Your task to perform on an android device: Go to Android settings Image 0: 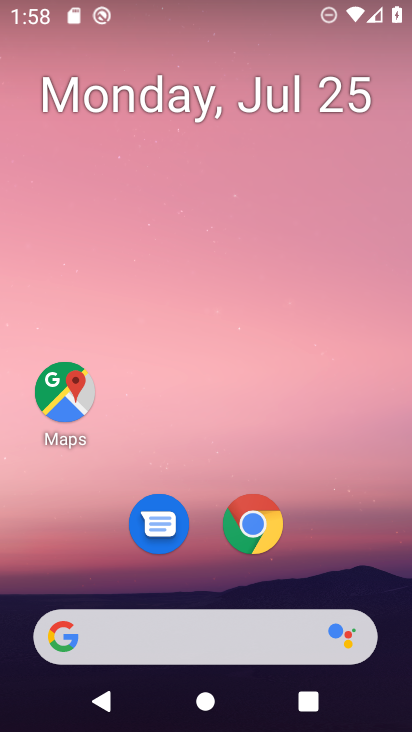
Step 0: press home button
Your task to perform on an android device: Go to Android settings Image 1: 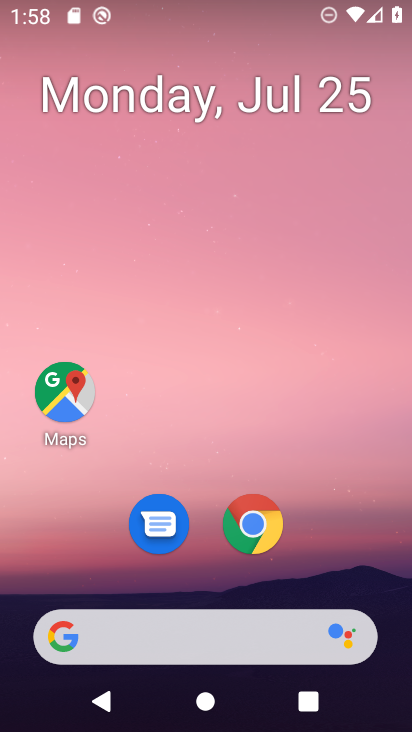
Step 1: drag from (220, 644) to (404, 188)
Your task to perform on an android device: Go to Android settings Image 2: 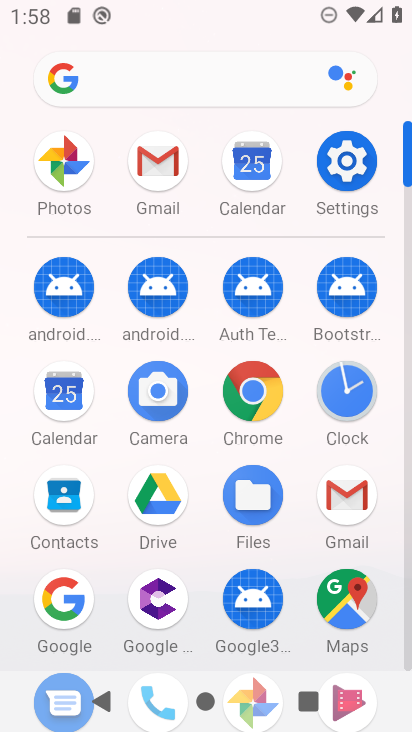
Step 2: click (355, 171)
Your task to perform on an android device: Go to Android settings Image 3: 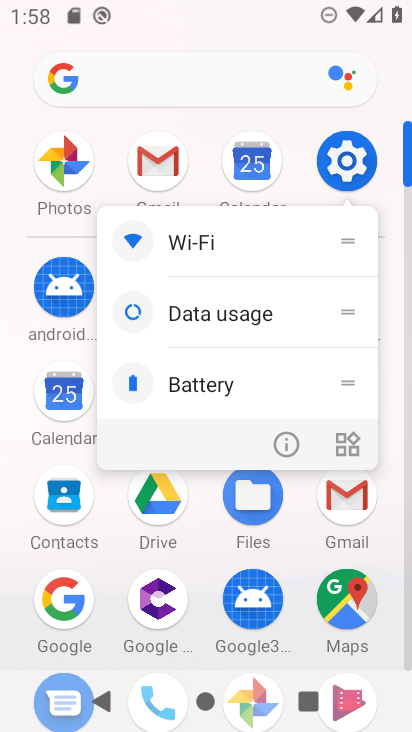
Step 3: click (338, 149)
Your task to perform on an android device: Go to Android settings Image 4: 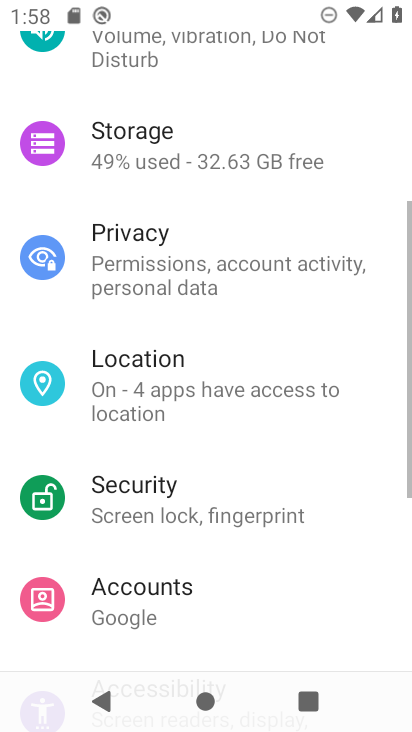
Step 4: click (342, 155)
Your task to perform on an android device: Go to Android settings Image 5: 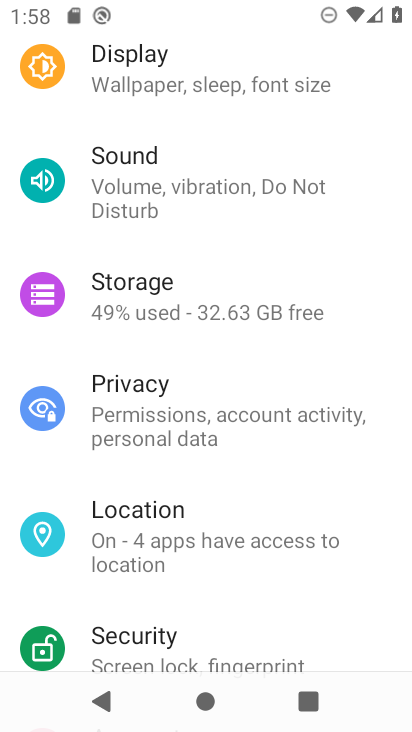
Step 5: task complete